Your task to perform on an android device: Open Chrome and go to settings Image 0: 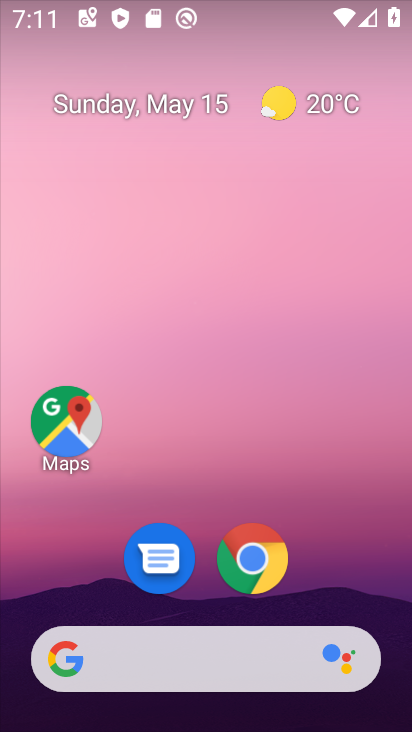
Step 0: drag from (330, 557) to (219, 70)
Your task to perform on an android device: Open Chrome and go to settings Image 1: 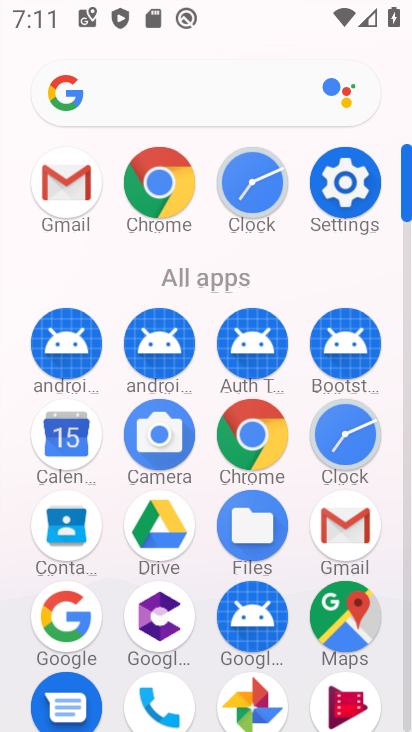
Step 1: click (342, 184)
Your task to perform on an android device: Open Chrome and go to settings Image 2: 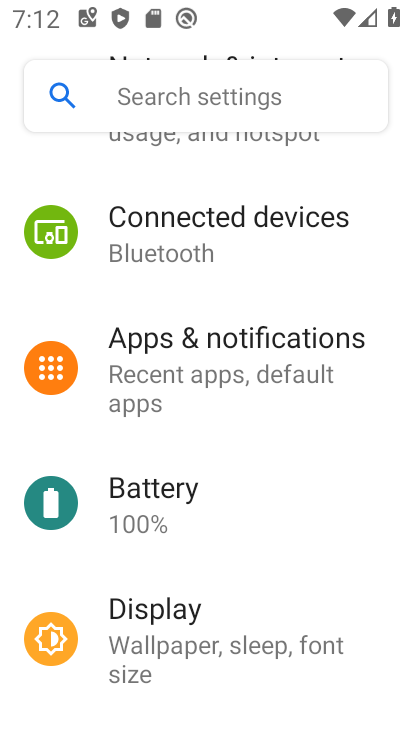
Step 2: drag from (268, 496) to (205, 274)
Your task to perform on an android device: Open Chrome and go to settings Image 3: 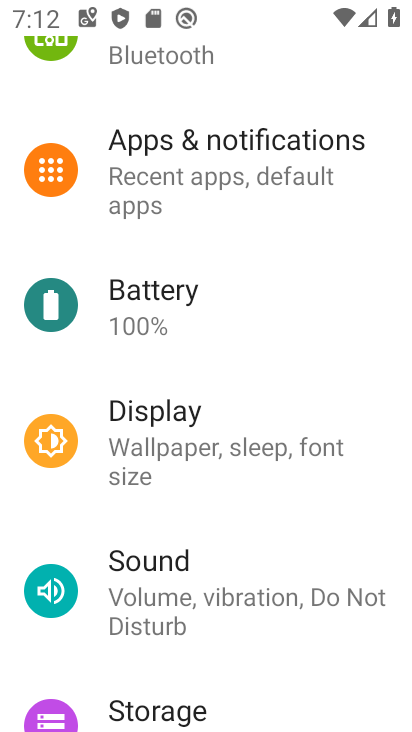
Step 3: press home button
Your task to perform on an android device: Open Chrome and go to settings Image 4: 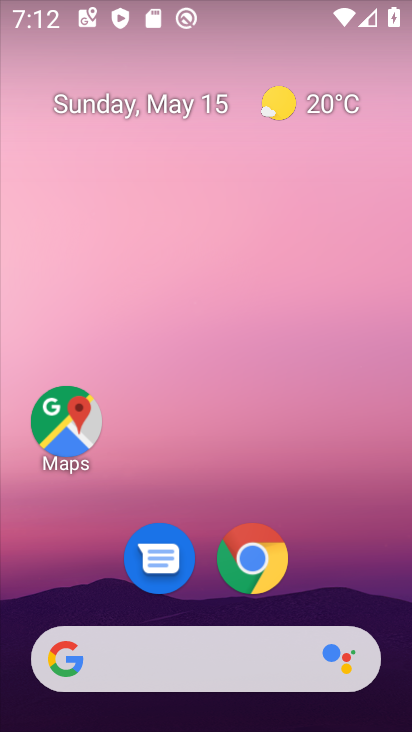
Step 4: click (251, 561)
Your task to perform on an android device: Open Chrome and go to settings Image 5: 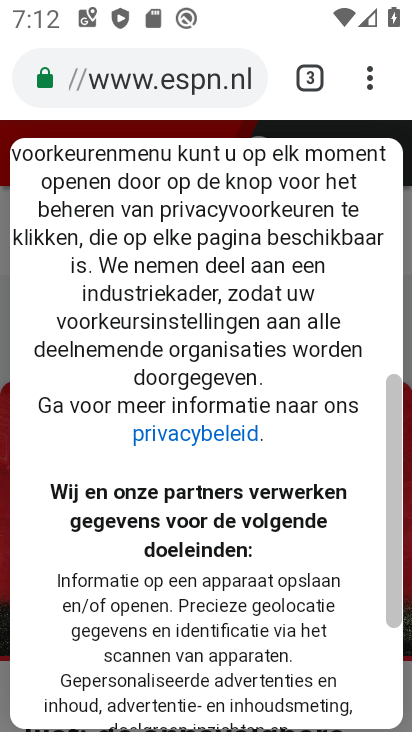
Step 5: click (372, 75)
Your task to perform on an android device: Open Chrome and go to settings Image 6: 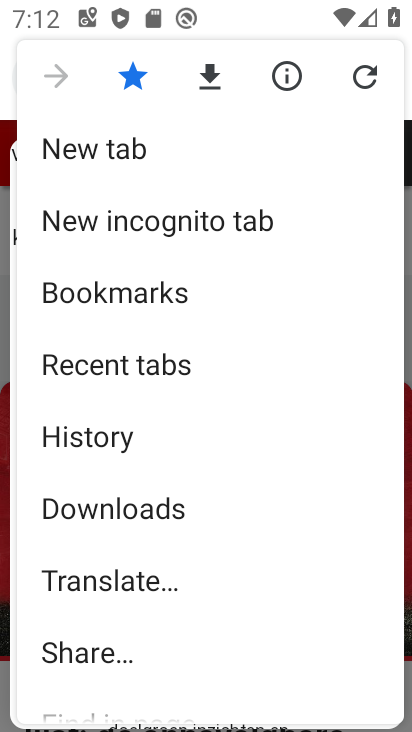
Step 6: drag from (276, 643) to (232, 290)
Your task to perform on an android device: Open Chrome and go to settings Image 7: 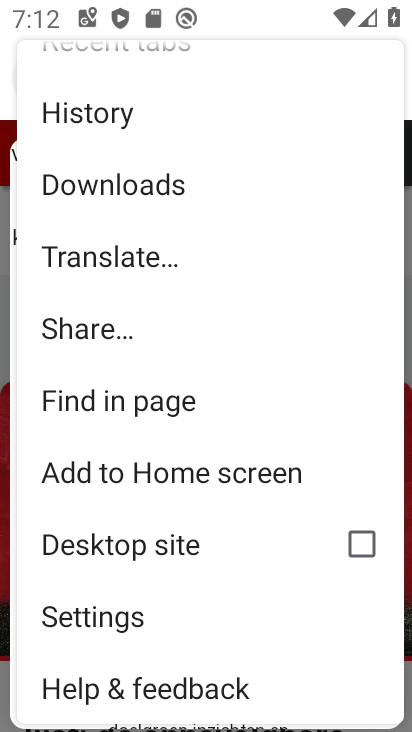
Step 7: click (95, 613)
Your task to perform on an android device: Open Chrome and go to settings Image 8: 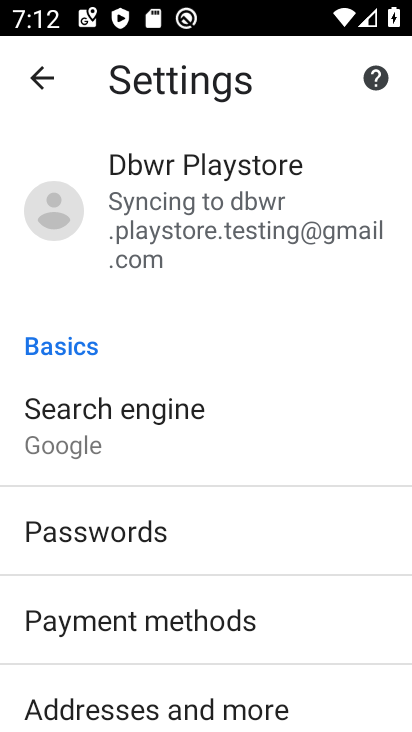
Step 8: task complete